Your task to perform on an android device: turn off location history Image 0: 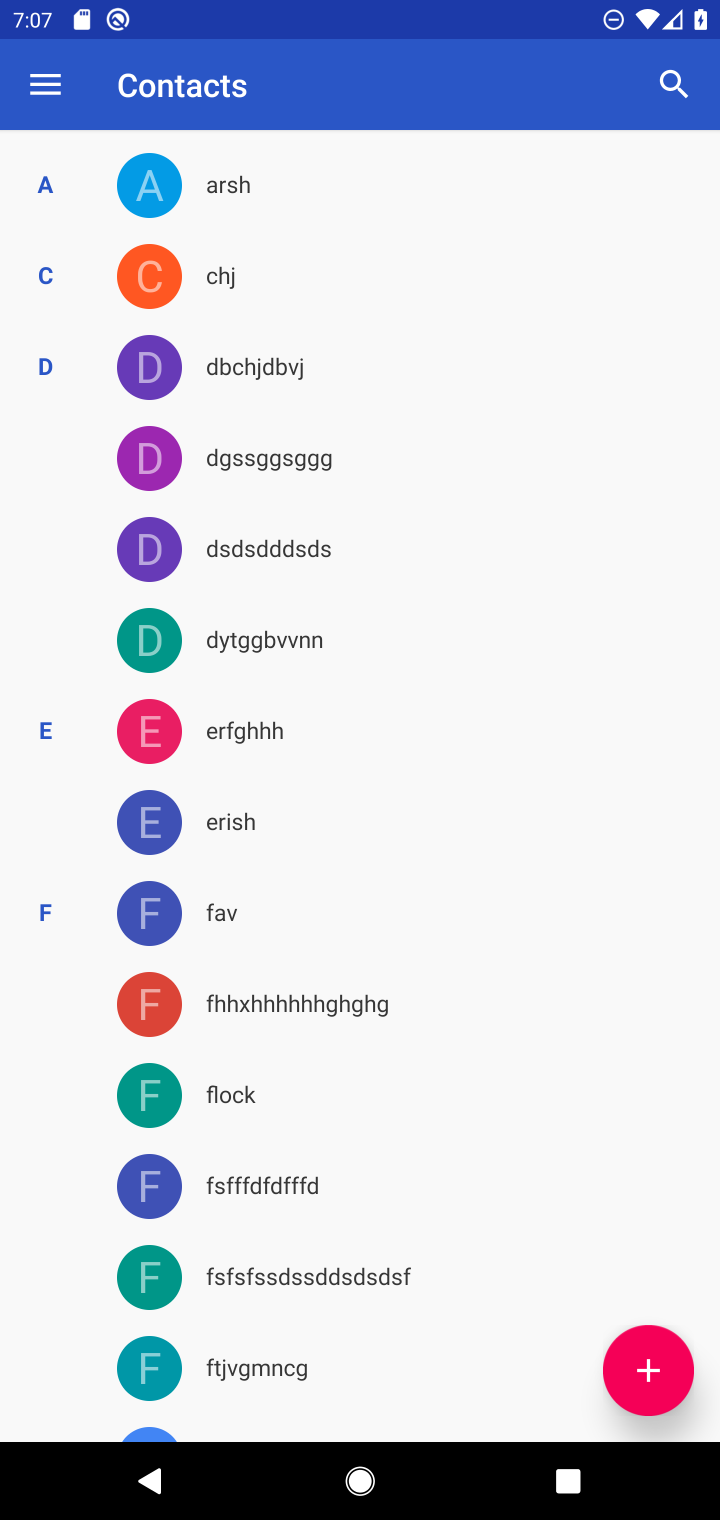
Step 0: press home button
Your task to perform on an android device: turn off location history Image 1: 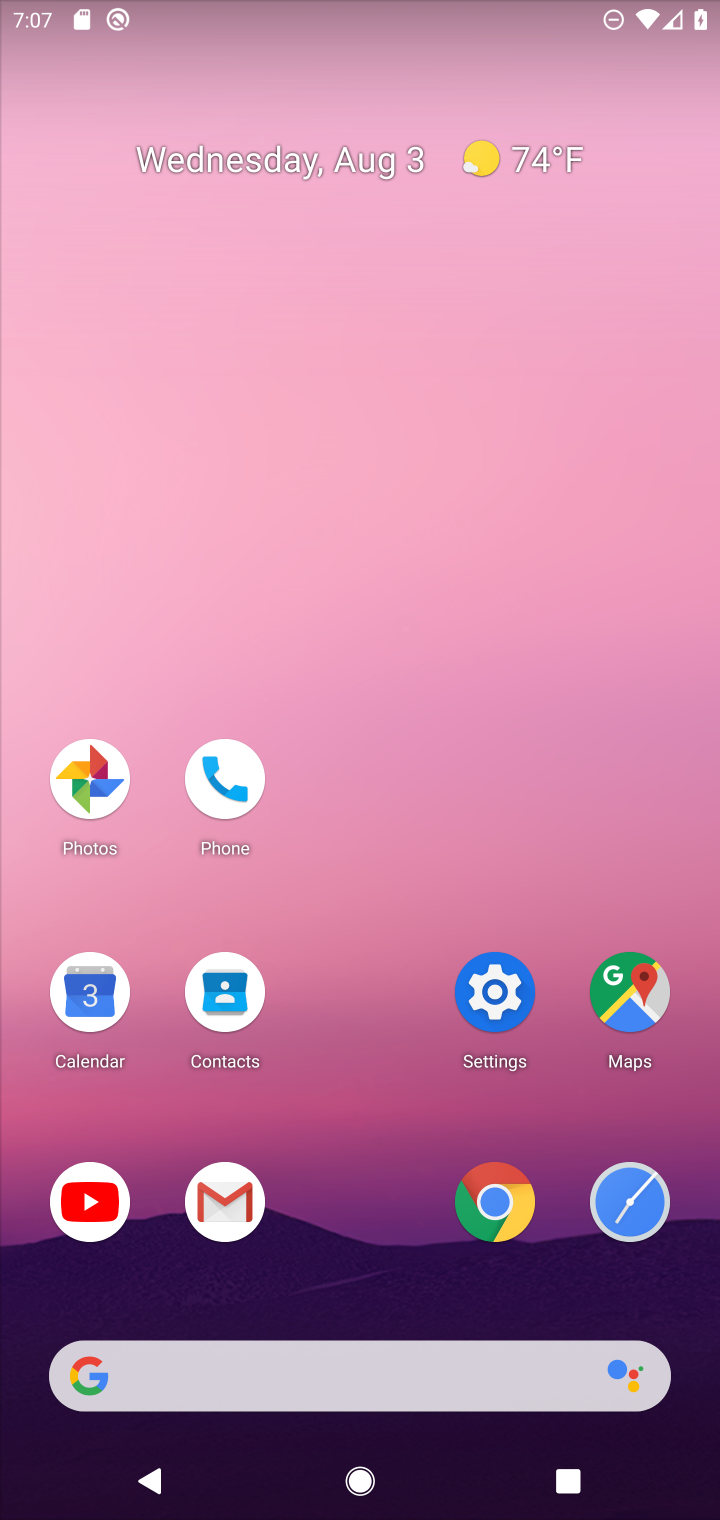
Step 1: click (493, 990)
Your task to perform on an android device: turn off location history Image 2: 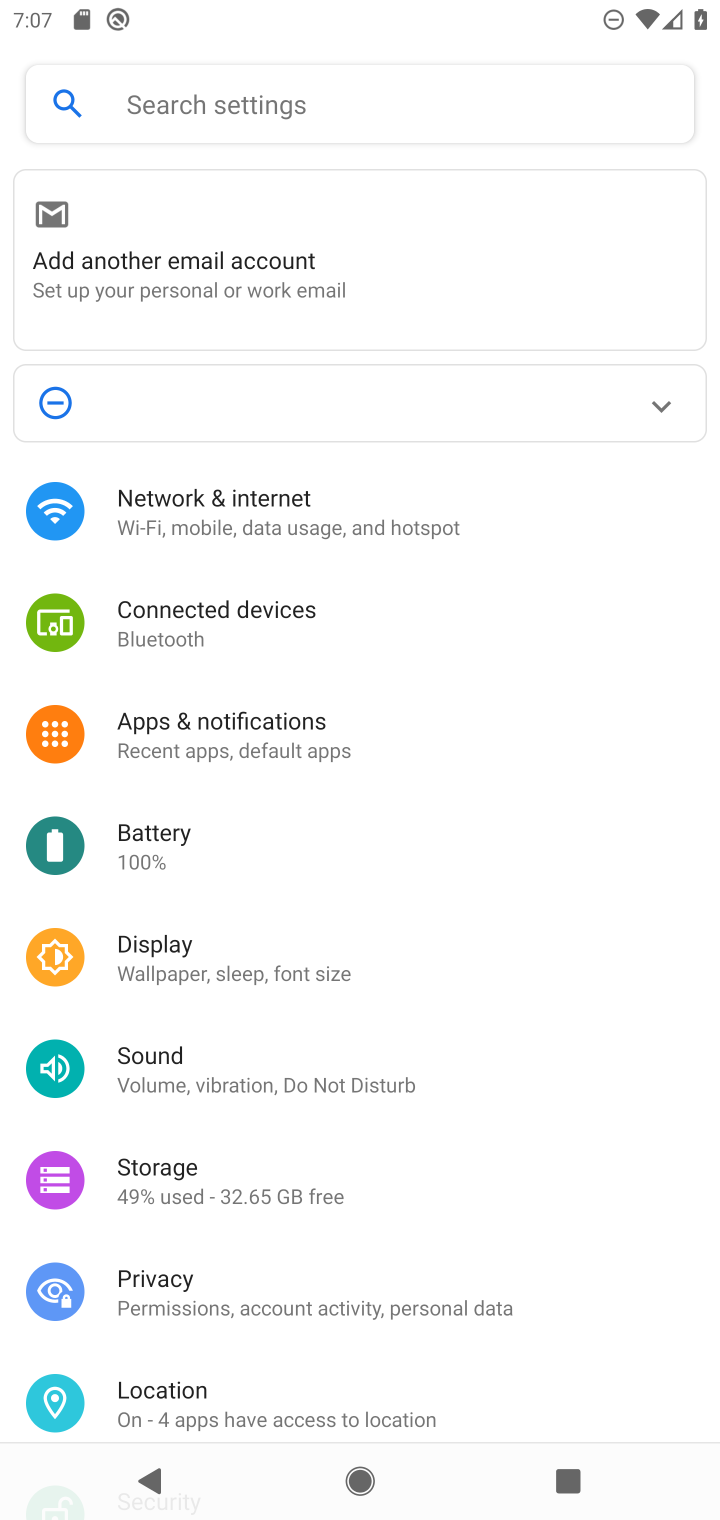
Step 2: click (163, 1402)
Your task to perform on an android device: turn off location history Image 3: 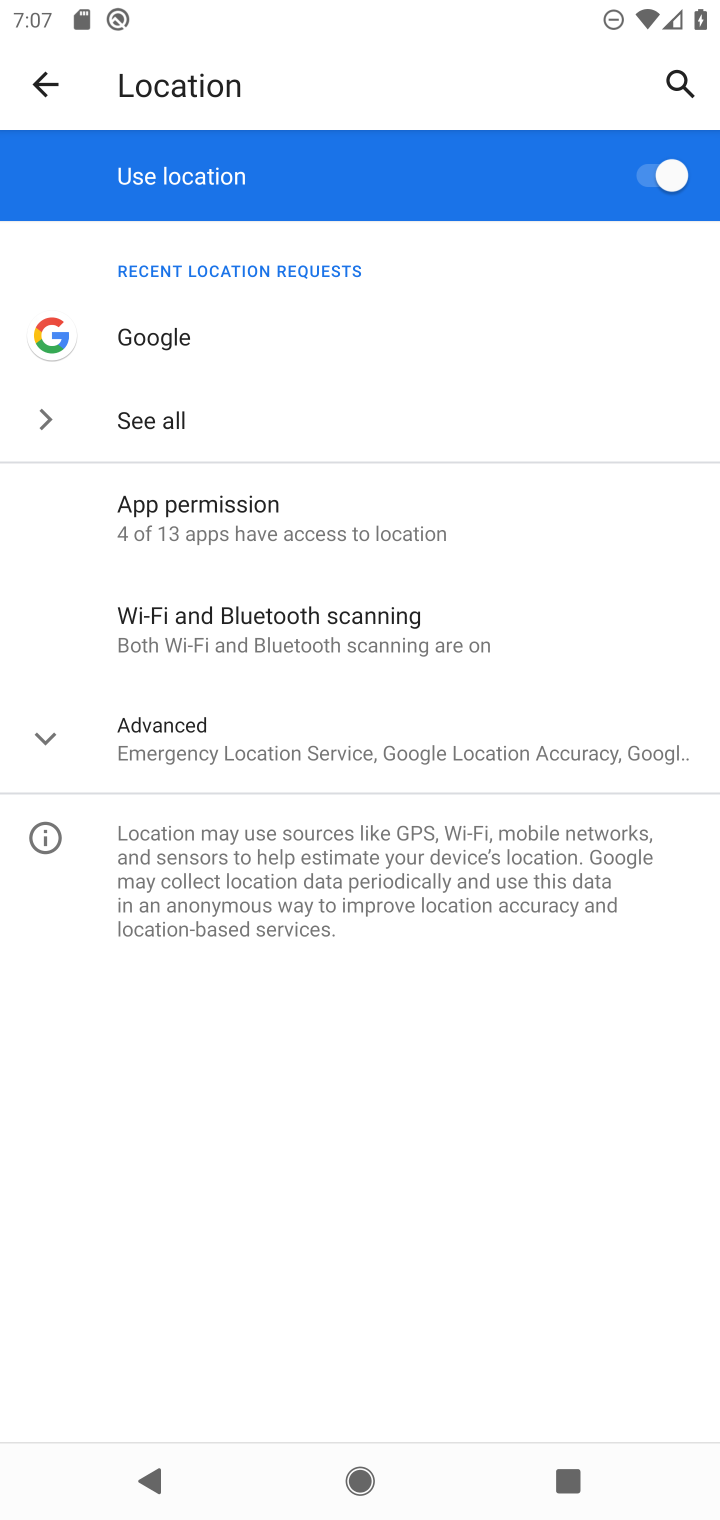
Step 3: click (37, 731)
Your task to perform on an android device: turn off location history Image 4: 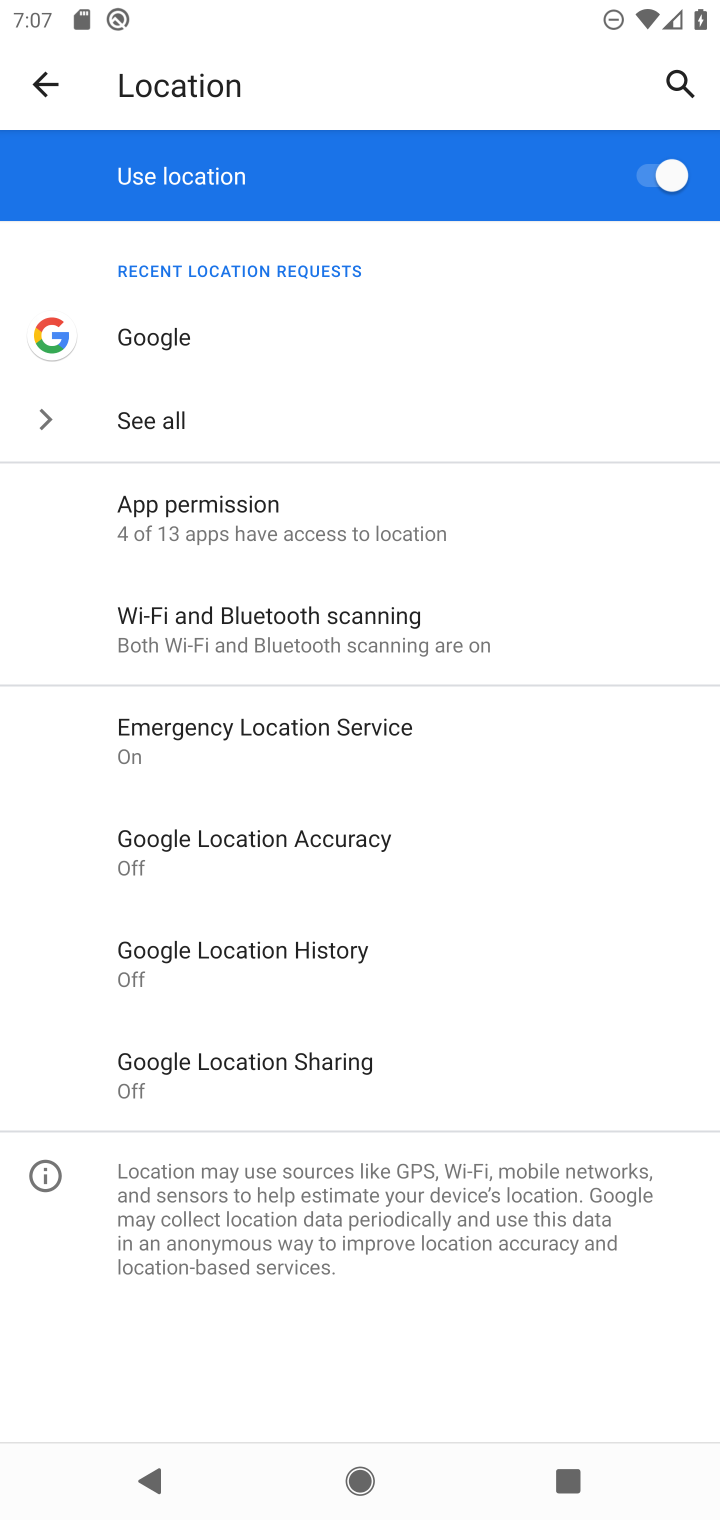
Step 4: click (210, 952)
Your task to perform on an android device: turn off location history Image 5: 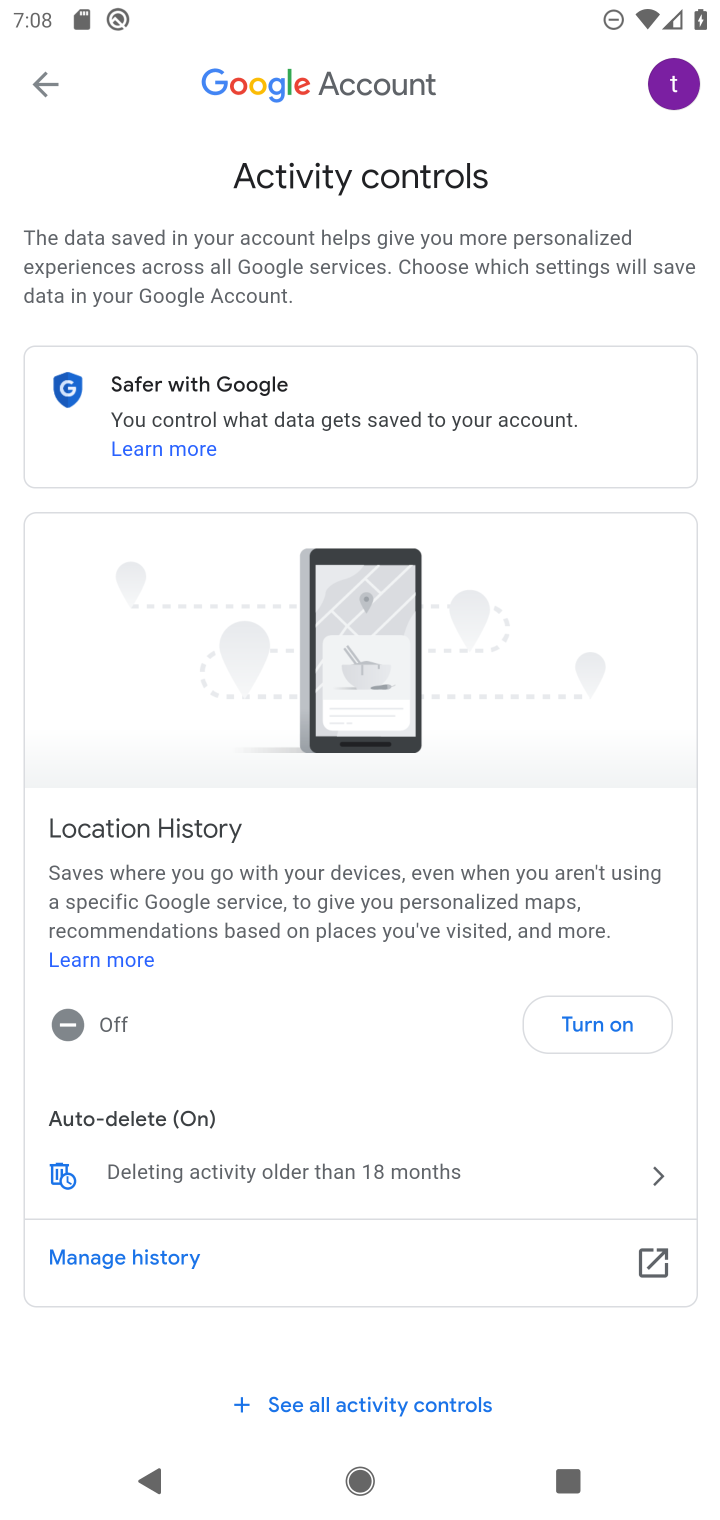
Step 5: task complete